Your task to perform on an android device: Open the map Image 0: 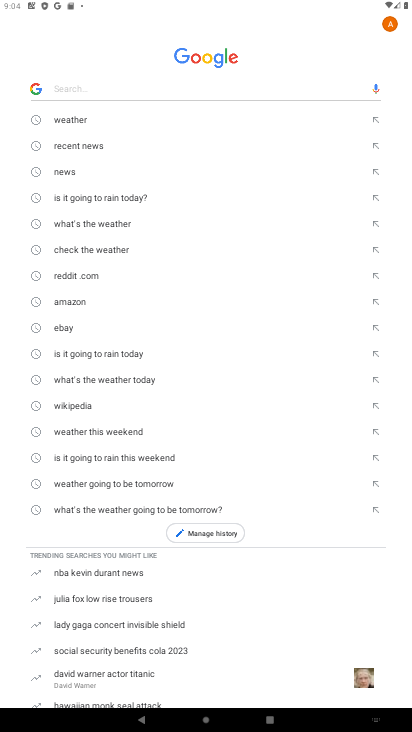
Step 0: press home button
Your task to perform on an android device: Open the map Image 1: 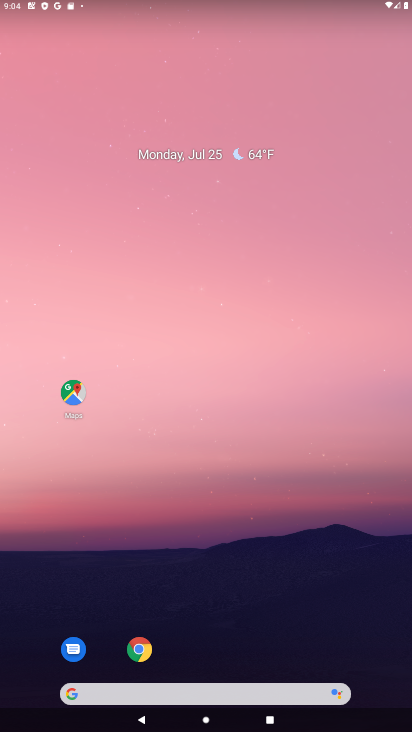
Step 1: click (62, 386)
Your task to perform on an android device: Open the map Image 2: 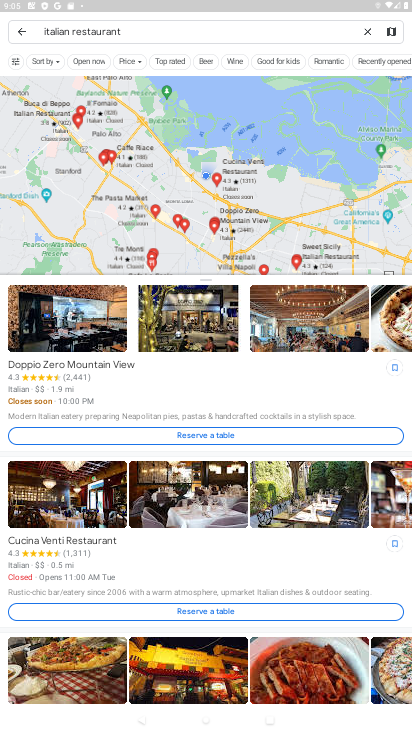
Step 2: task complete